Your task to perform on an android device: turn off notifications in google photos Image 0: 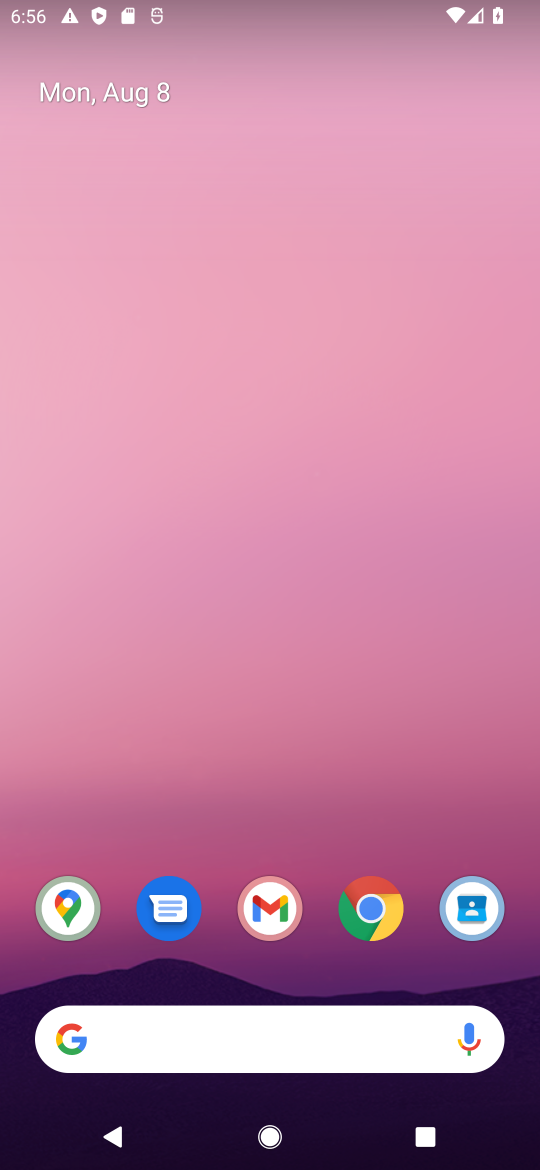
Step 0: drag from (305, 947) to (234, 96)
Your task to perform on an android device: turn off notifications in google photos Image 1: 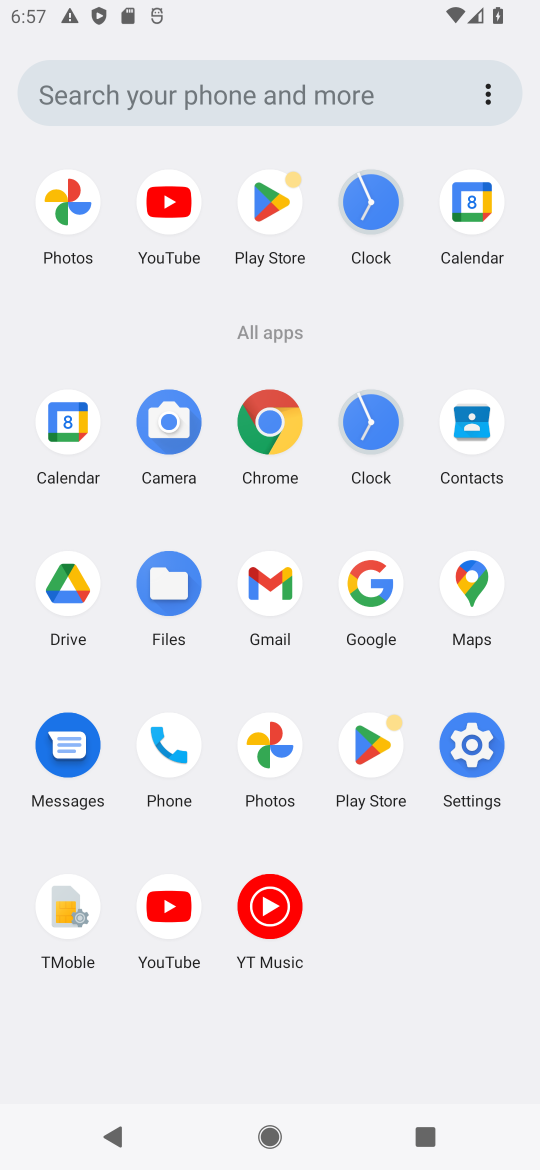
Step 1: click (58, 196)
Your task to perform on an android device: turn off notifications in google photos Image 2: 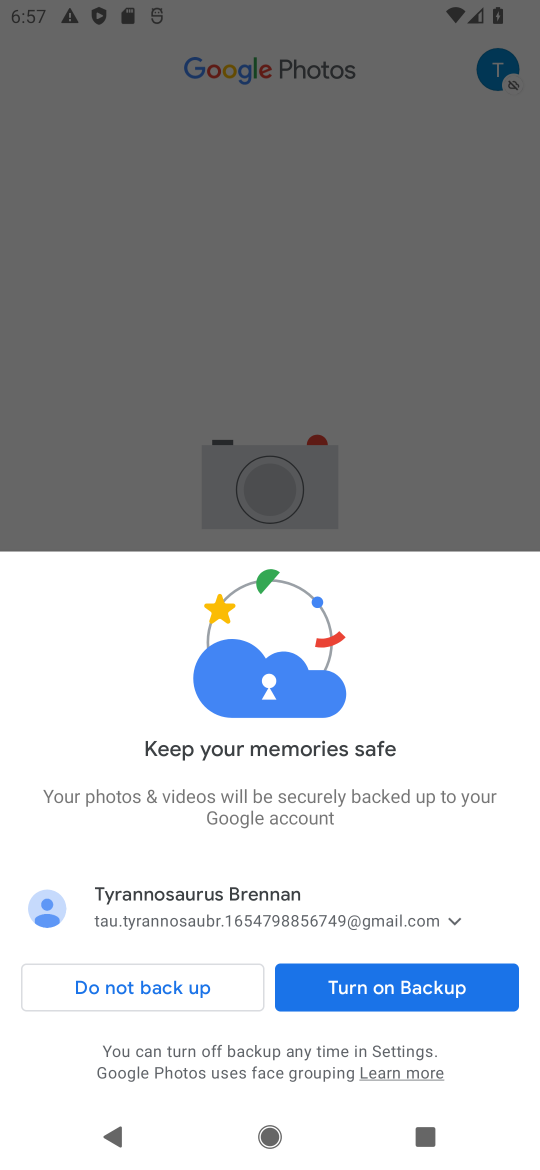
Step 2: click (355, 980)
Your task to perform on an android device: turn off notifications in google photos Image 3: 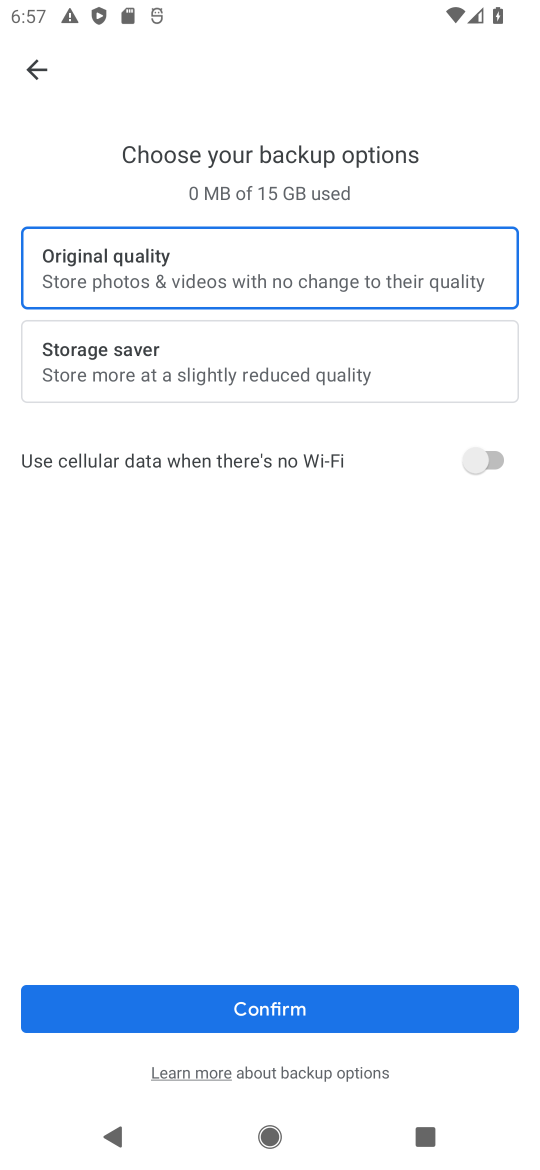
Step 3: click (269, 996)
Your task to perform on an android device: turn off notifications in google photos Image 4: 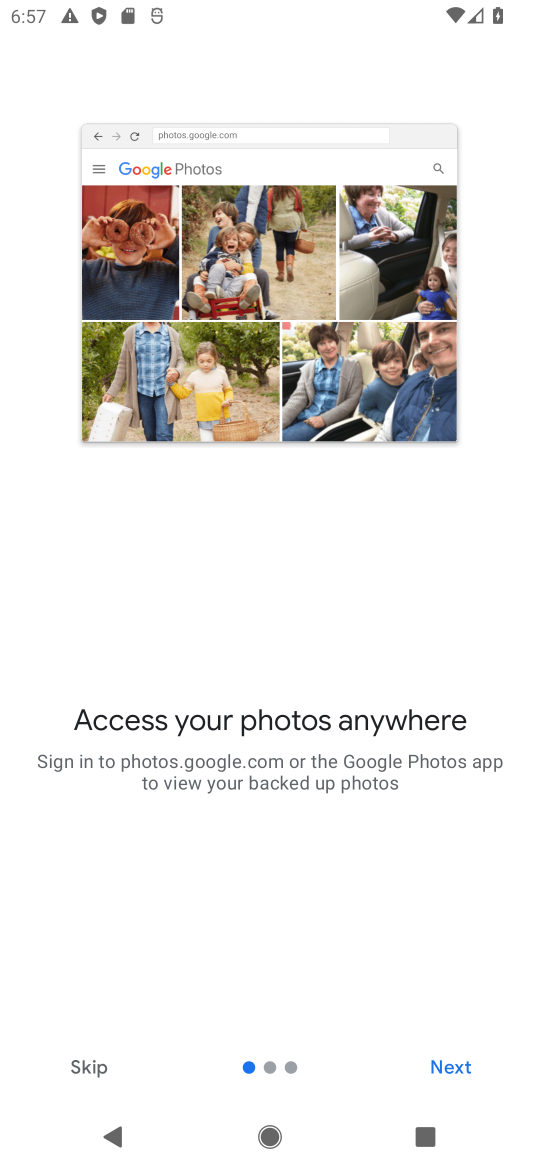
Step 4: click (449, 1057)
Your task to perform on an android device: turn off notifications in google photos Image 5: 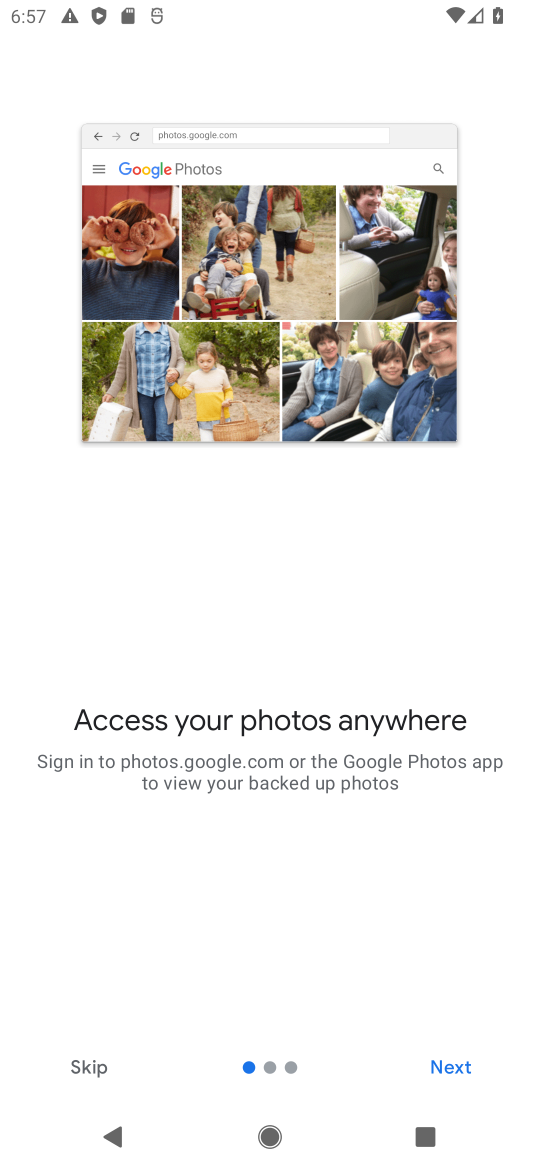
Step 5: click (449, 1057)
Your task to perform on an android device: turn off notifications in google photos Image 6: 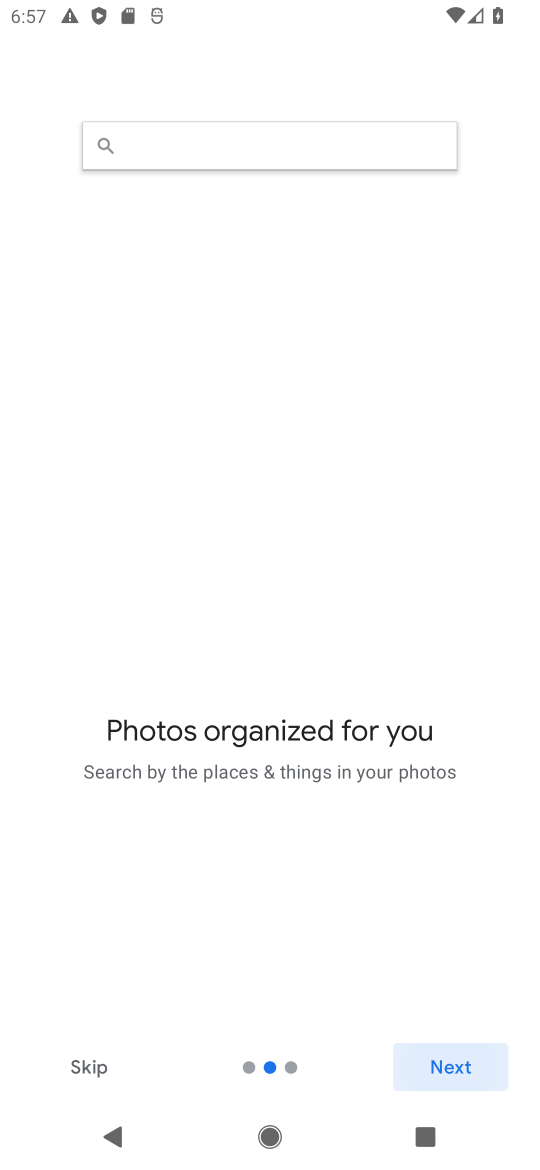
Step 6: click (449, 1057)
Your task to perform on an android device: turn off notifications in google photos Image 7: 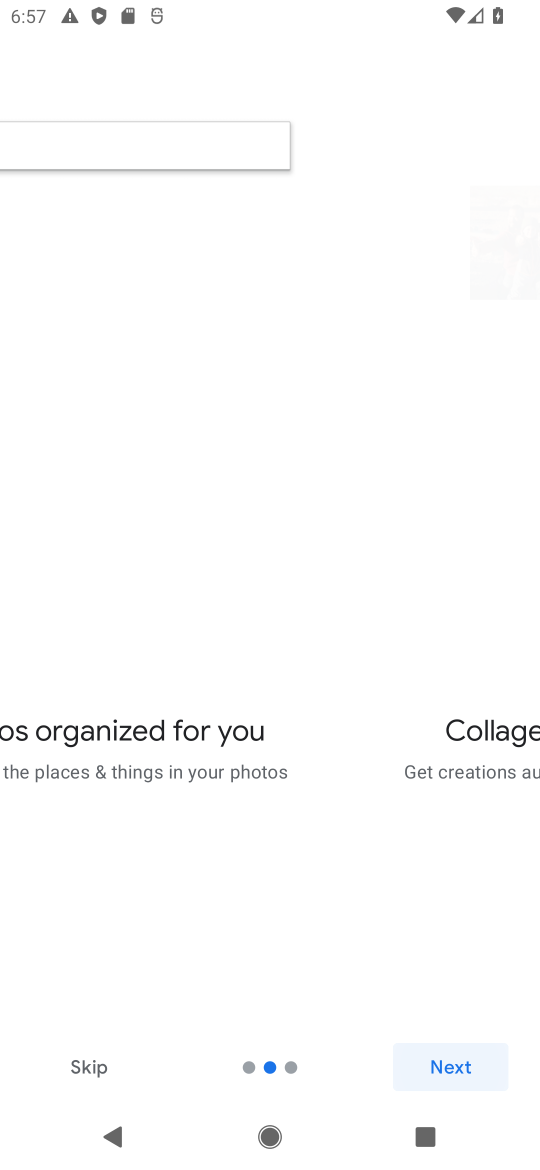
Step 7: click (449, 1057)
Your task to perform on an android device: turn off notifications in google photos Image 8: 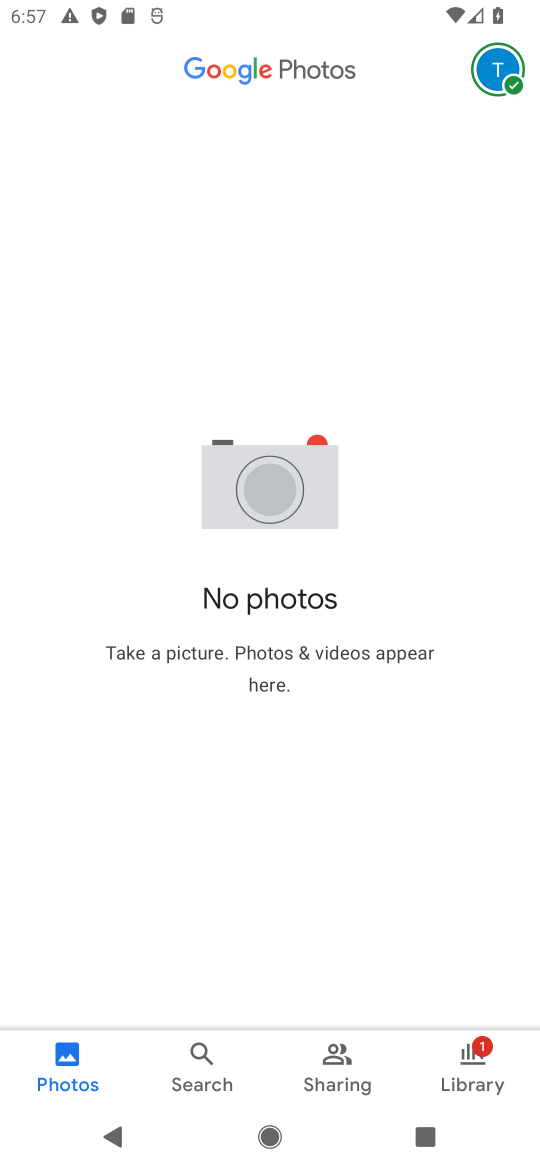
Step 8: click (449, 1057)
Your task to perform on an android device: turn off notifications in google photos Image 9: 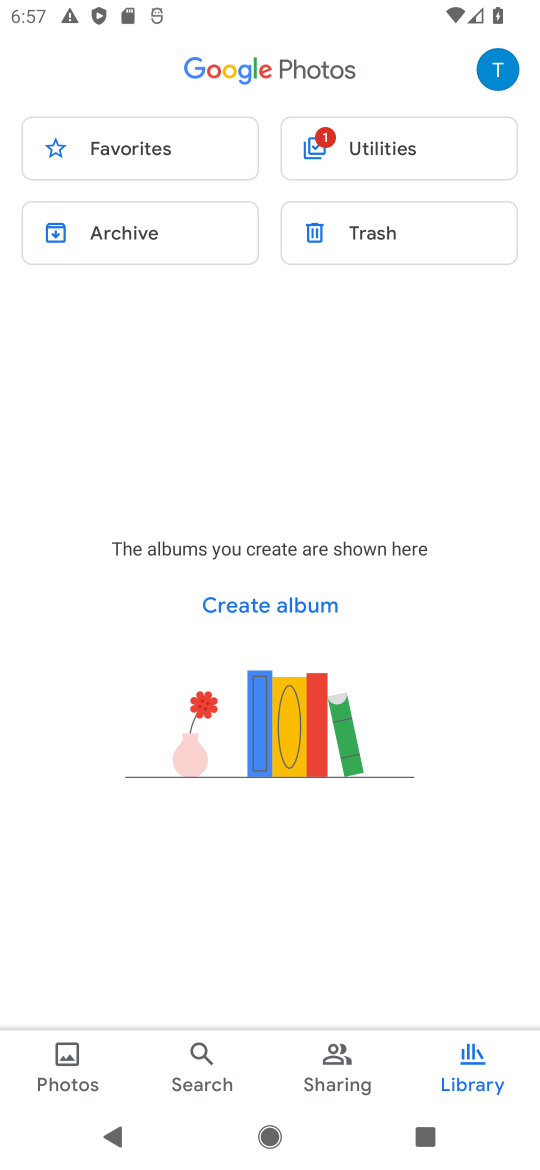
Step 9: click (79, 1057)
Your task to perform on an android device: turn off notifications in google photos Image 10: 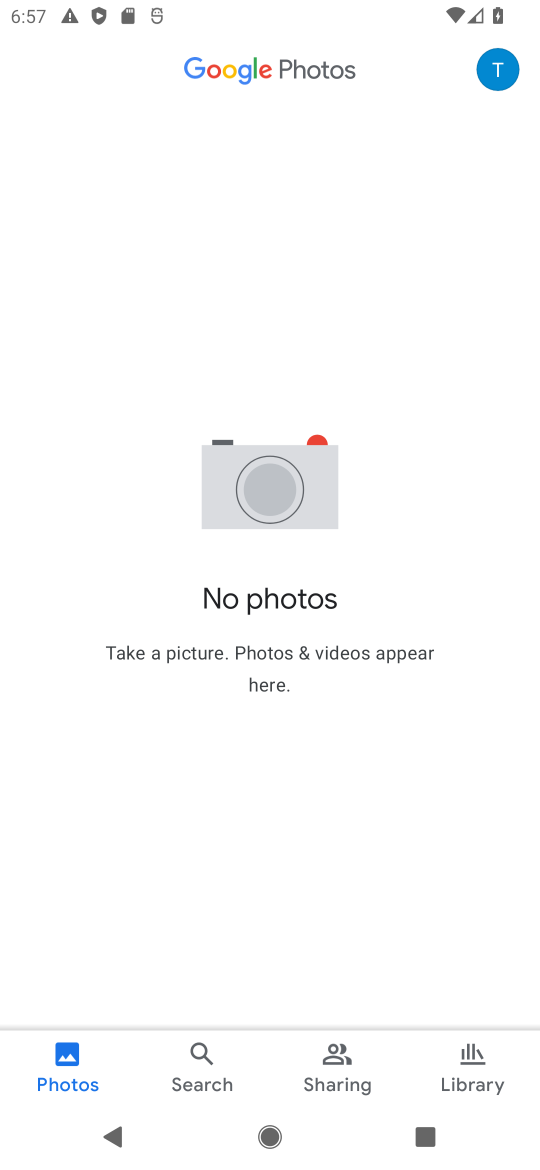
Step 10: click (505, 59)
Your task to perform on an android device: turn off notifications in google photos Image 11: 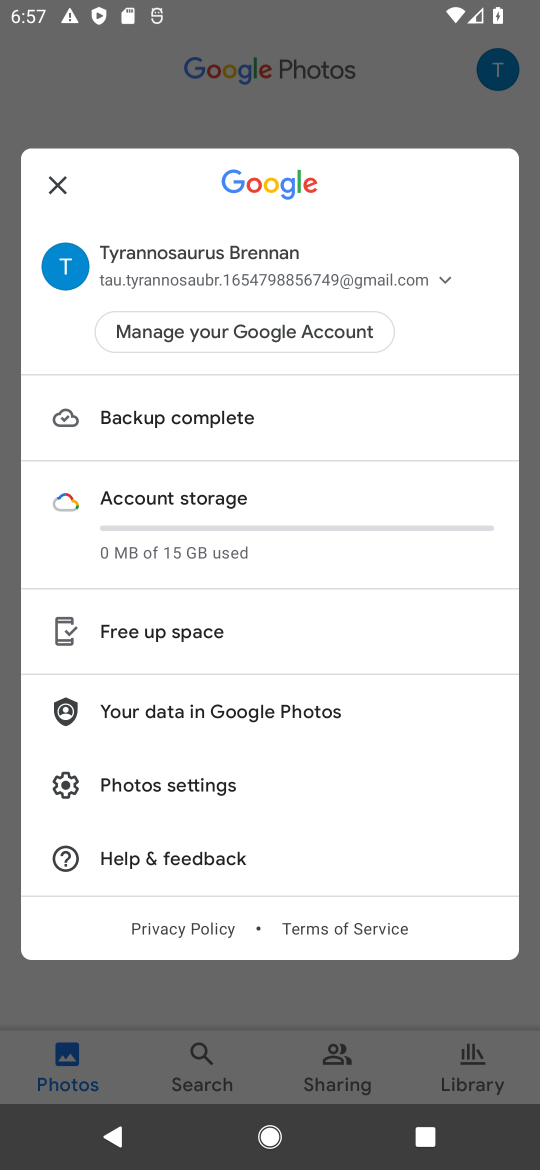
Step 11: click (151, 808)
Your task to perform on an android device: turn off notifications in google photos Image 12: 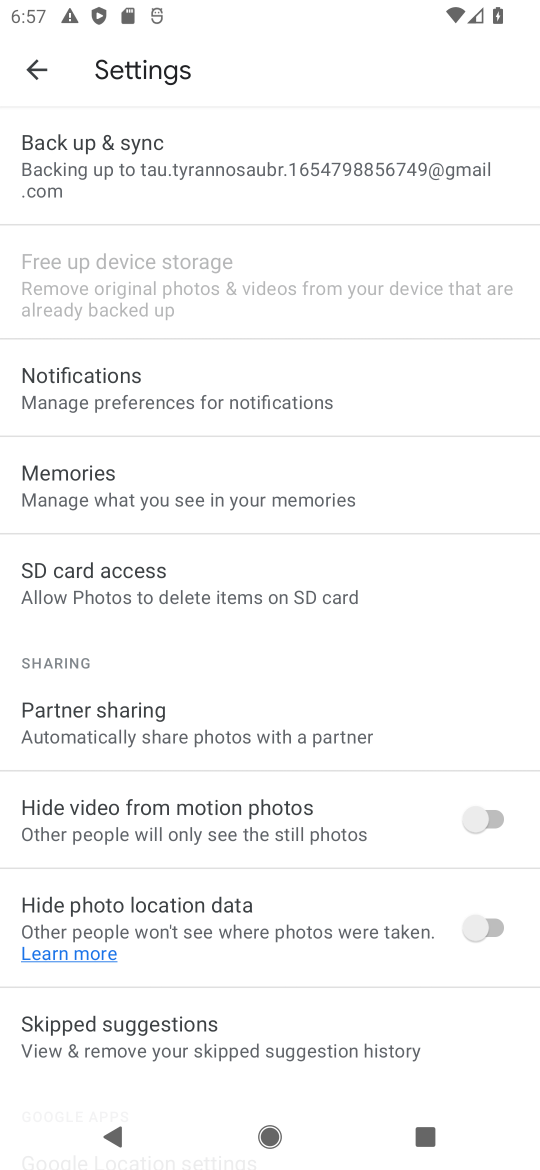
Step 12: click (94, 405)
Your task to perform on an android device: turn off notifications in google photos Image 13: 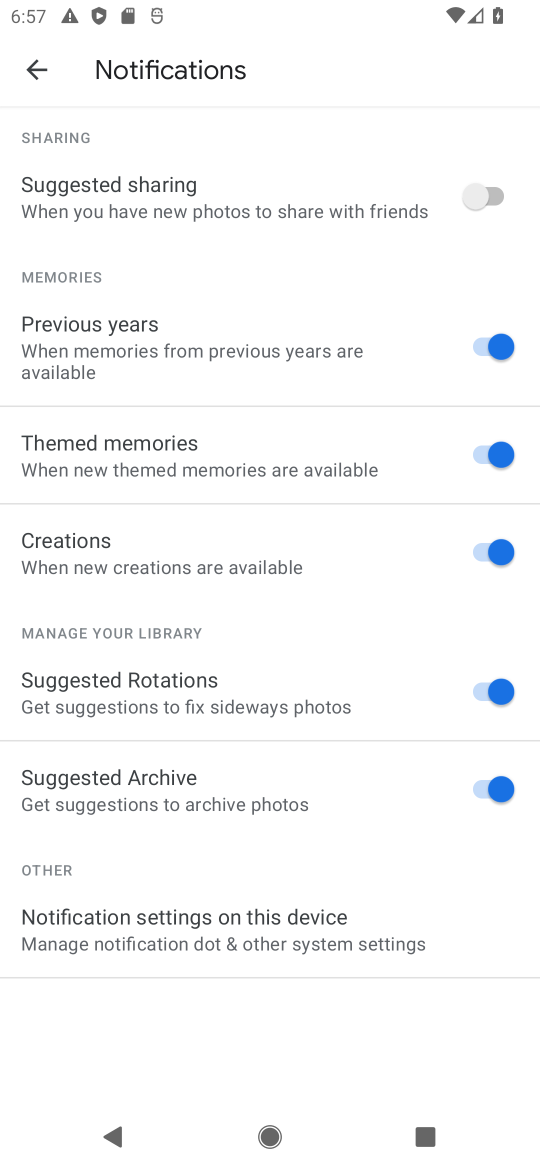
Step 13: click (506, 466)
Your task to perform on an android device: turn off notifications in google photos Image 14: 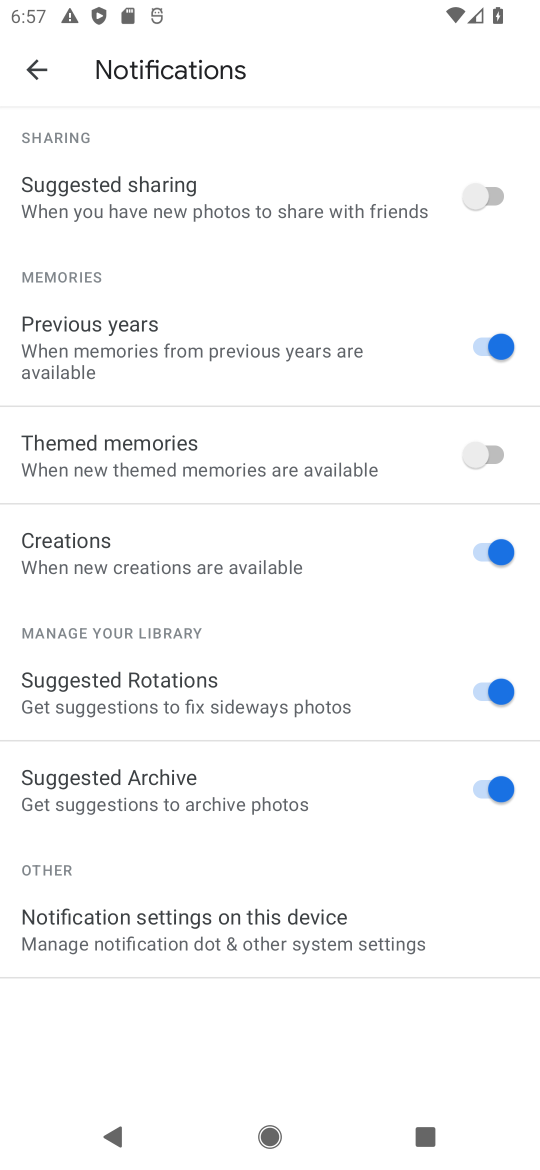
Step 14: click (503, 551)
Your task to perform on an android device: turn off notifications in google photos Image 15: 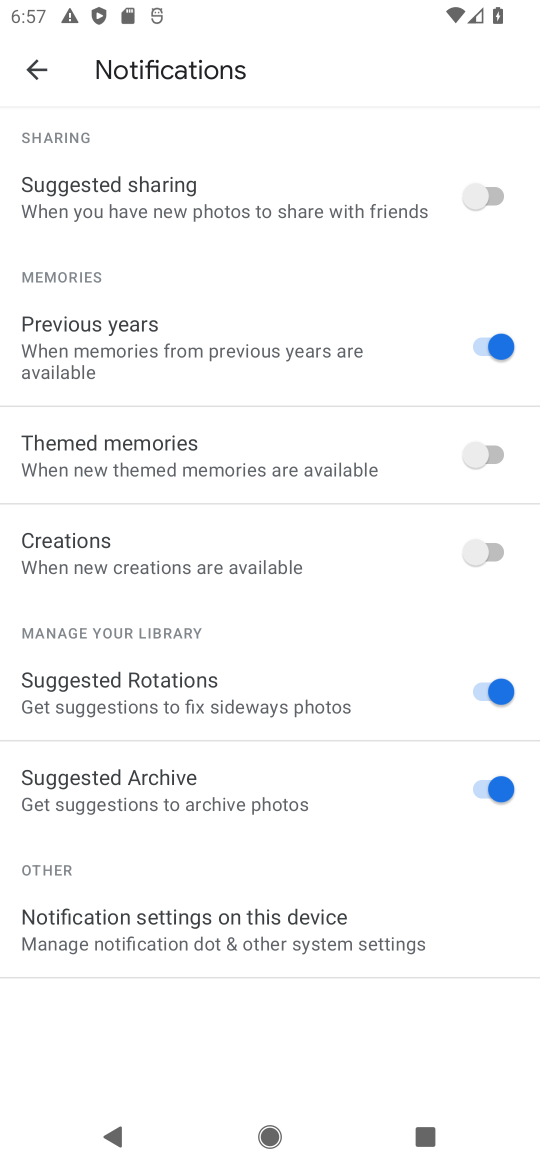
Step 15: click (260, 914)
Your task to perform on an android device: turn off notifications in google photos Image 16: 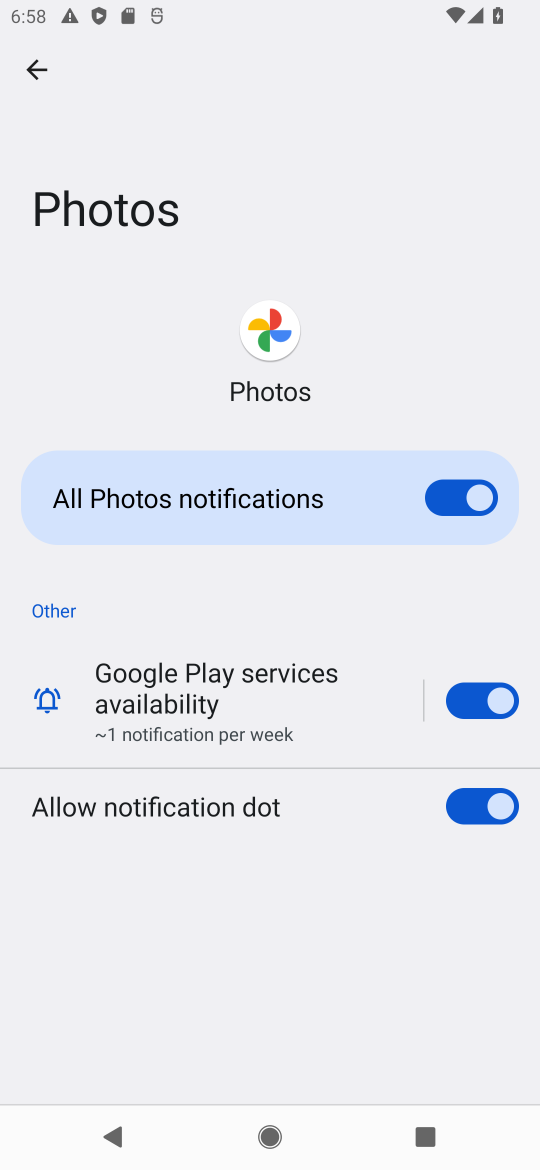
Step 16: click (38, 82)
Your task to perform on an android device: turn off notifications in google photos Image 17: 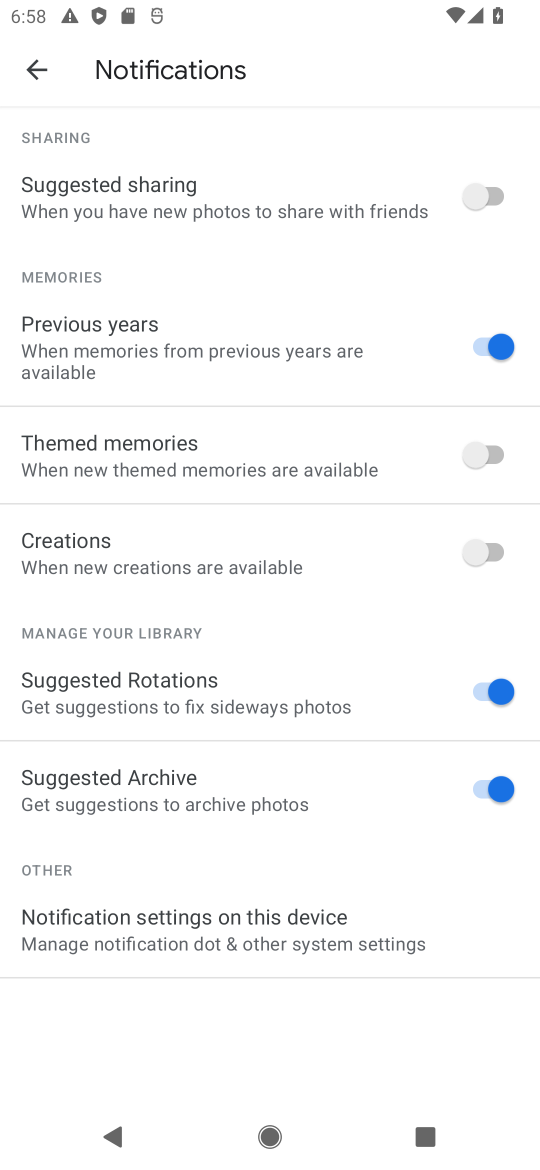
Step 17: click (502, 796)
Your task to perform on an android device: turn off notifications in google photos Image 18: 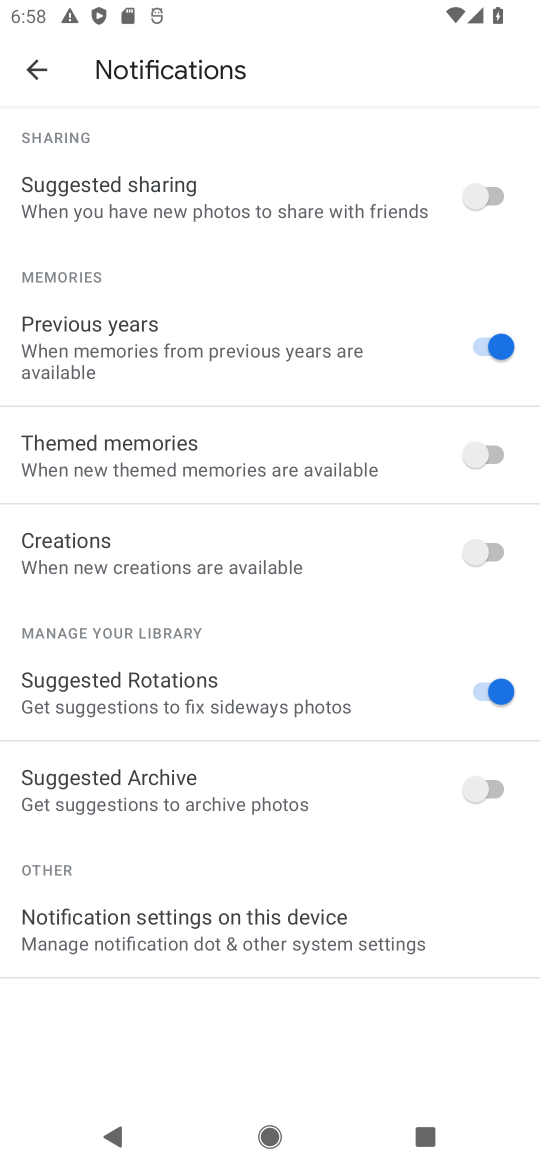
Step 18: click (299, 937)
Your task to perform on an android device: turn off notifications in google photos Image 19: 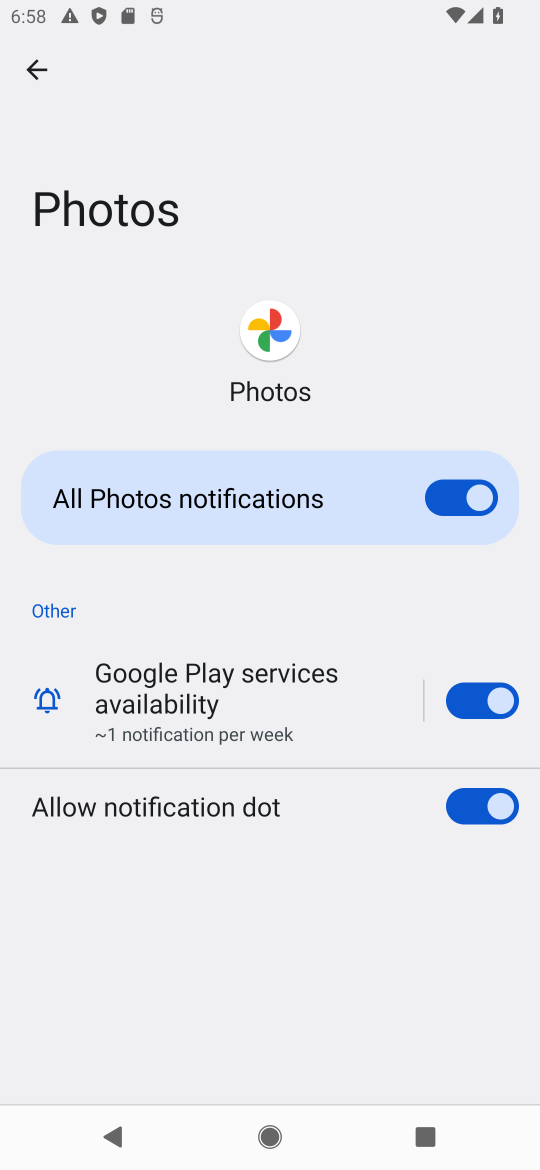
Step 19: click (472, 508)
Your task to perform on an android device: turn off notifications in google photos Image 20: 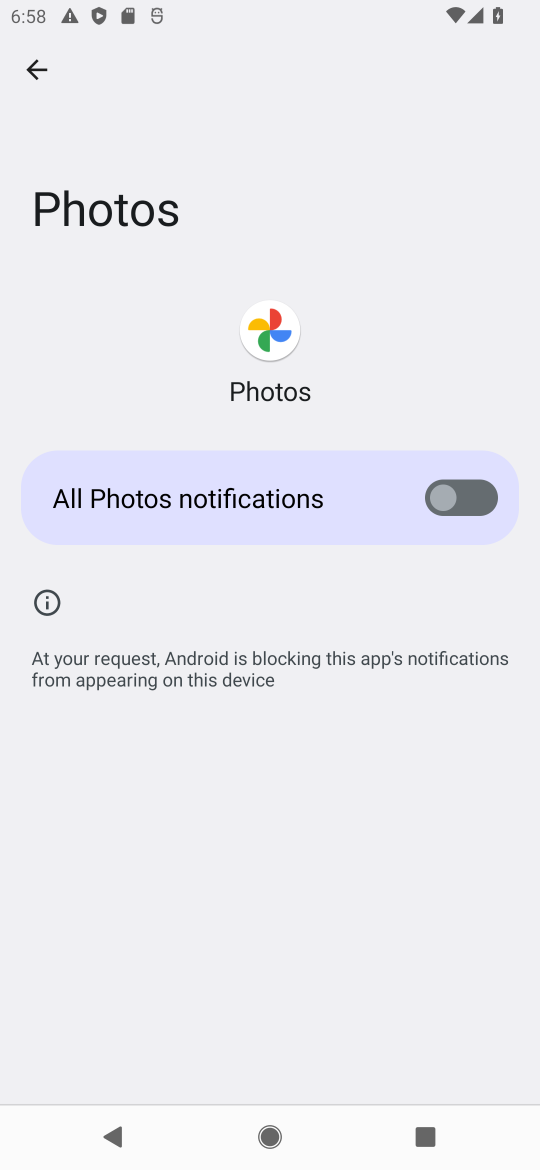
Step 20: task complete